Your task to perform on an android device: Open Amazon Image 0: 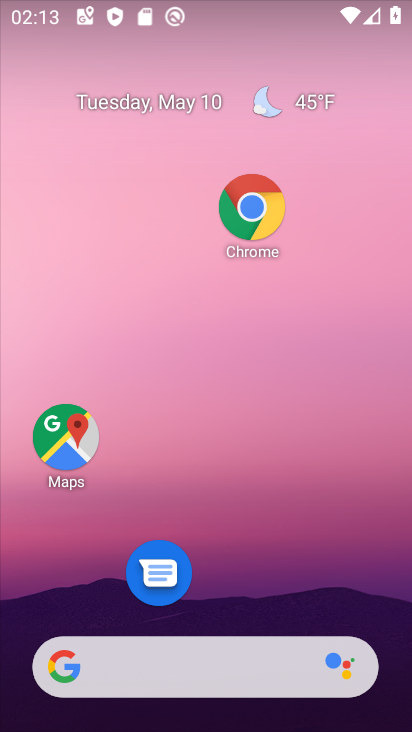
Step 0: click (400, 234)
Your task to perform on an android device: Open Amazon Image 1: 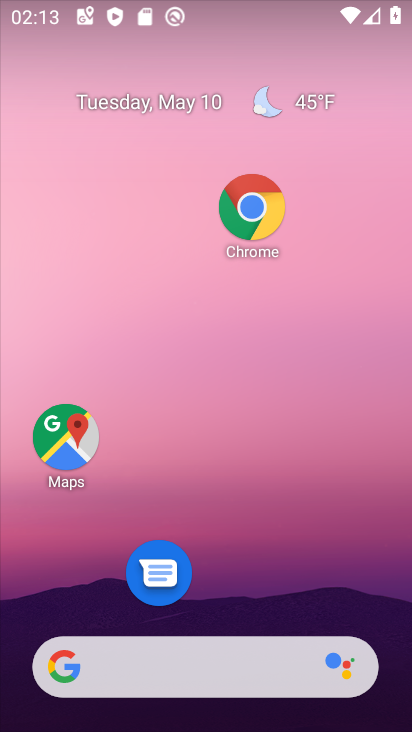
Step 1: click (283, 230)
Your task to perform on an android device: Open Amazon Image 2: 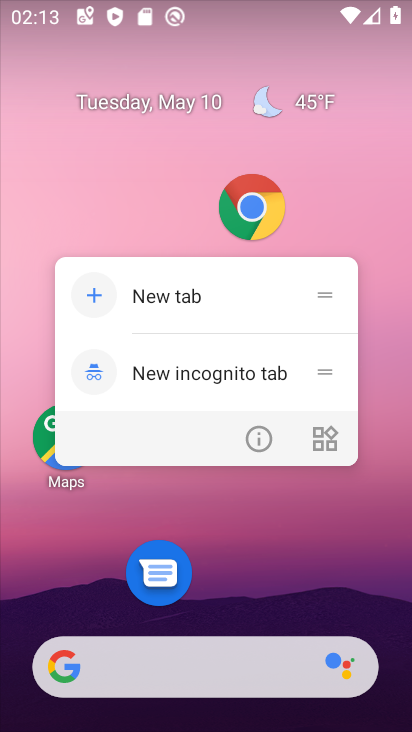
Step 2: click (249, 210)
Your task to perform on an android device: Open Amazon Image 3: 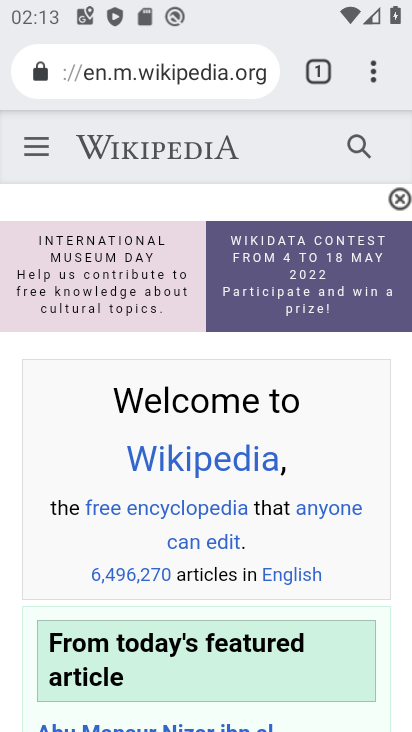
Step 3: click (366, 71)
Your task to perform on an android device: Open Amazon Image 4: 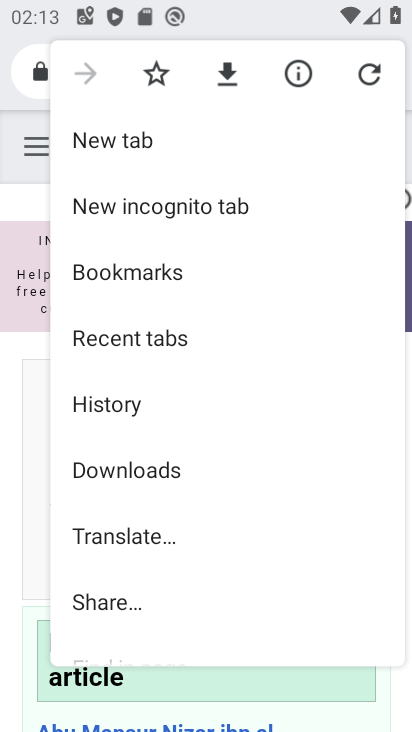
Step 4: click (149, 148)
Your task to perform on an android device: Open Amazon Image 5: 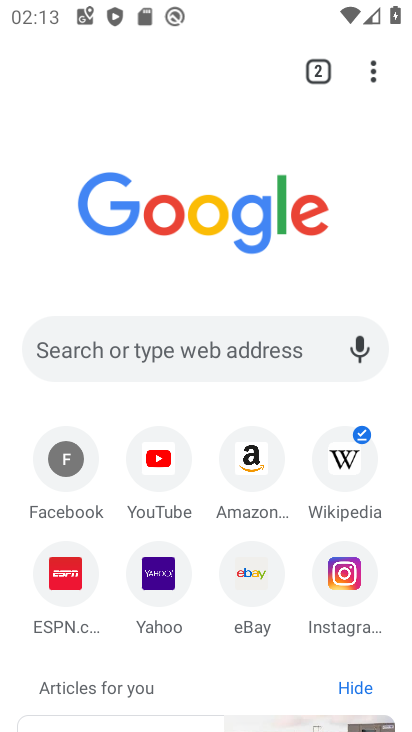
Step 5: click (258, 445)
Your task to perform on an android device: Open Amazon Image 6: 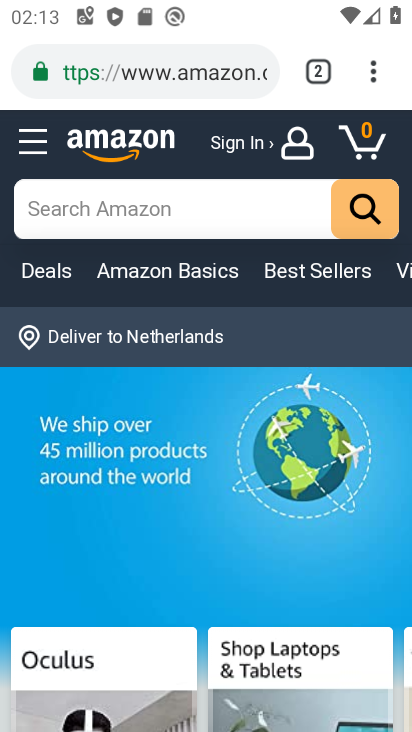
Step 6: task complete